Your task to perform on an android device: open a new tab in the chrome app Image 0: 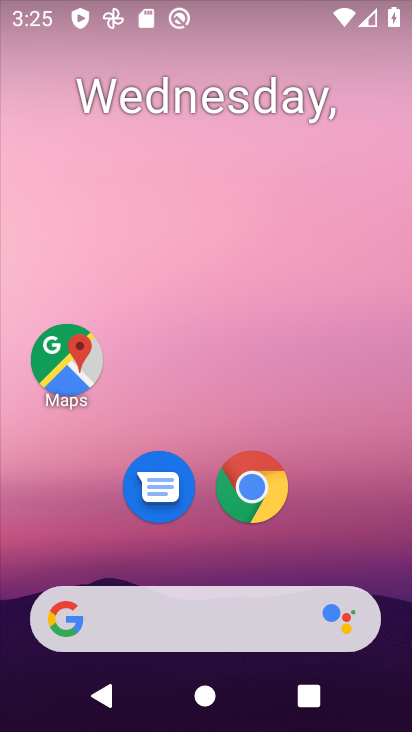
Step 0: drag from (366, 539) to (378, 195)
Your task to perform on an android device: open a new tab in the chrome app Image 1: 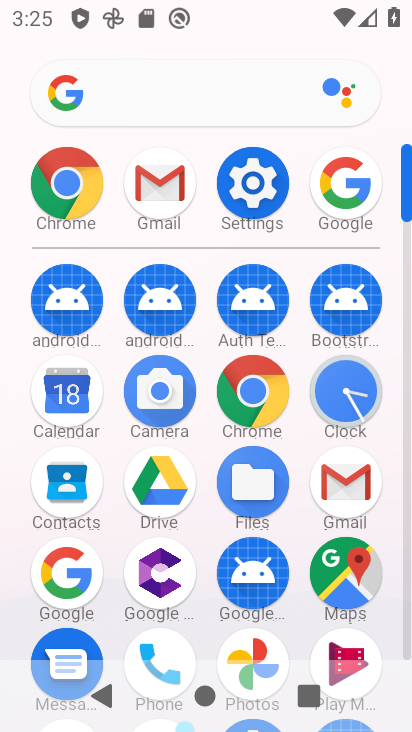
Step 1: click (264, 397)
Your task to perform on an android device: open a new tab in the chrome app Image 2: 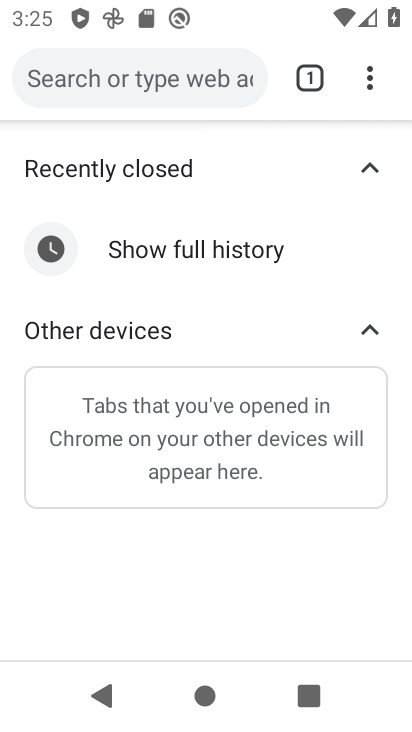
Step 2: click (372, 81)
Your task to perform on an android device: open a new tab in the chrome app Image 3: 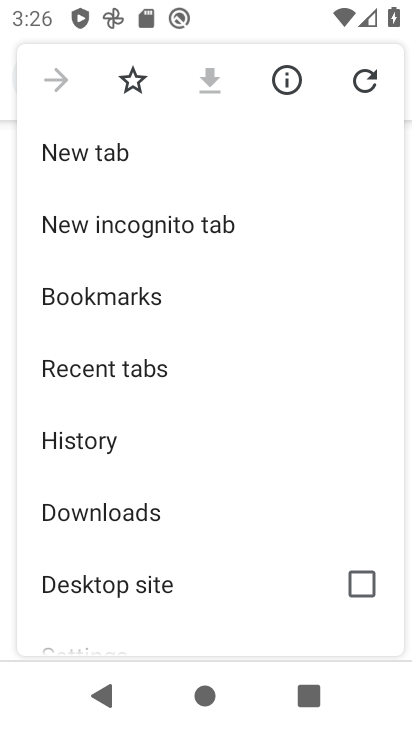
Step 3: drag from (267, 428) to (283, 327)
Your task to perform on an android device: open a new tab in the chrome app Image 4: 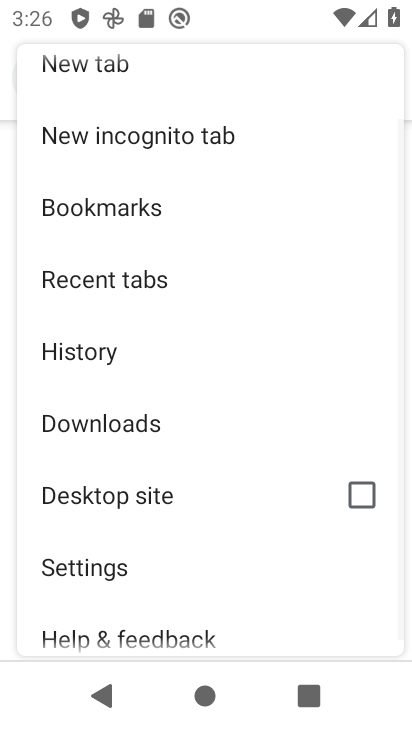
Step 4: drag from (283, 483) to (296, 359)
Your task to perform on an android device: open a new tab in the chrome app Image 5: 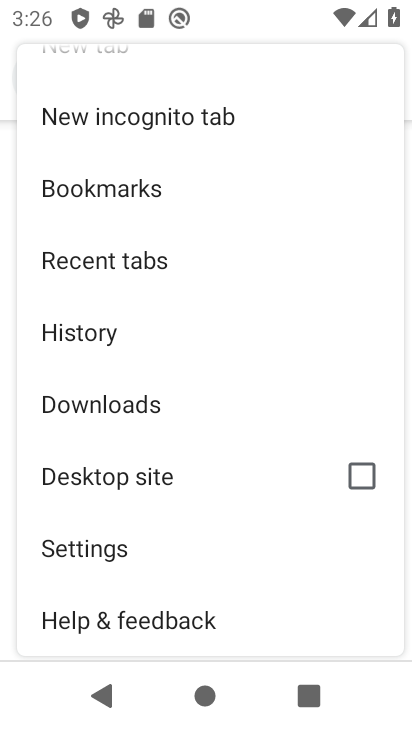
Step 5: drag from (266, 526) to (261, 349)
Your task to perform on an android device: open a new tab in the chrome app Image 6: 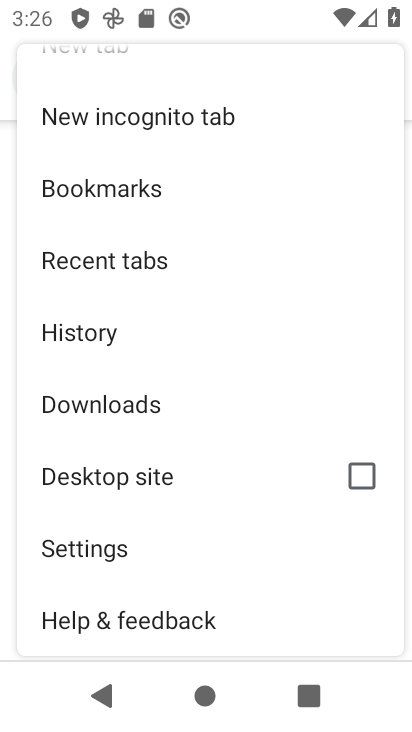
Step 6: drag from (258, 319) to (231, 450)
Your task to perform on an android device: open a new tab in the chrome app Image 7: 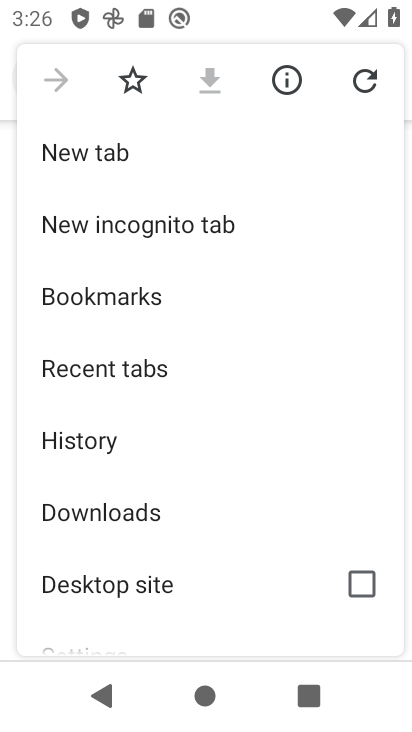
Step 7: drag from (264, 274) to (245, 403)
Your task to perform on an android device: open a new tab in the chrome app Image 8: 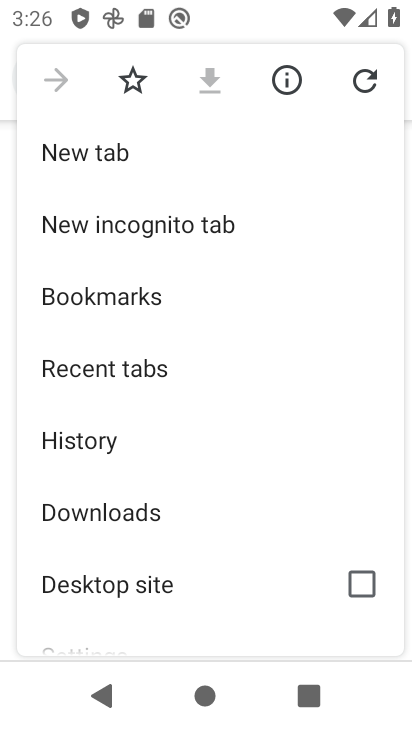
Step 8: click (124, 167)
Your task to perform on an android device: open a new tab in the chrome app Image 9: 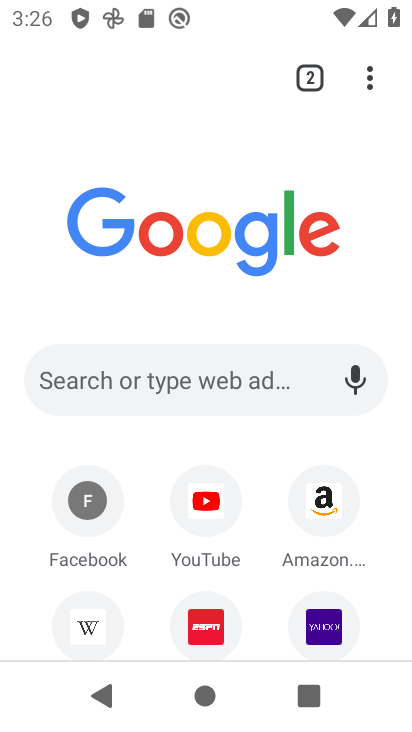
Step 9: task complete